Your task to perform on an android device: When is my next appointment? Image 0: 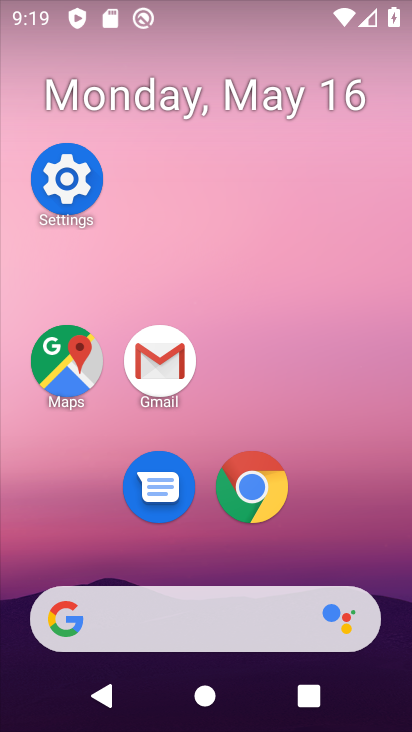
Step 0: drag from (203, 509) to (253, 218)
Your task to perform on an android device: When is my next appointment? Image 1: 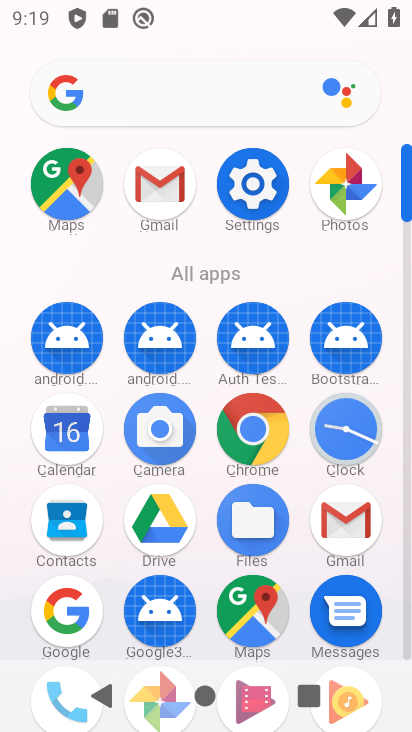
Step 1: drag from (73, 446) to (153, 216)
Your task to perform on an android device: When is my next appointment? Image 2: 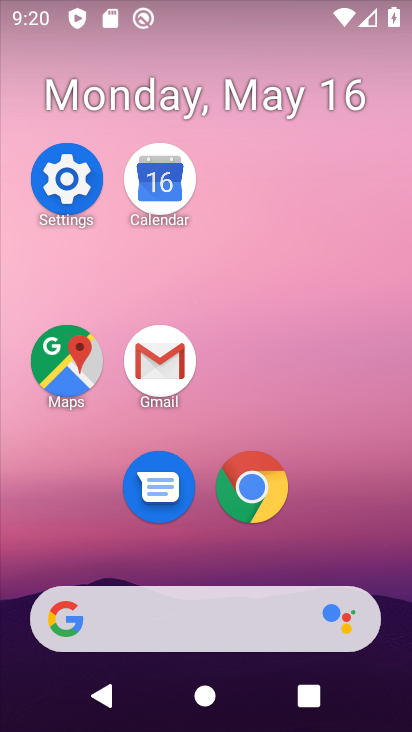
Step 2: click (165, 176)
Your task to perform on an android device: When is my next appointment? Image 3: 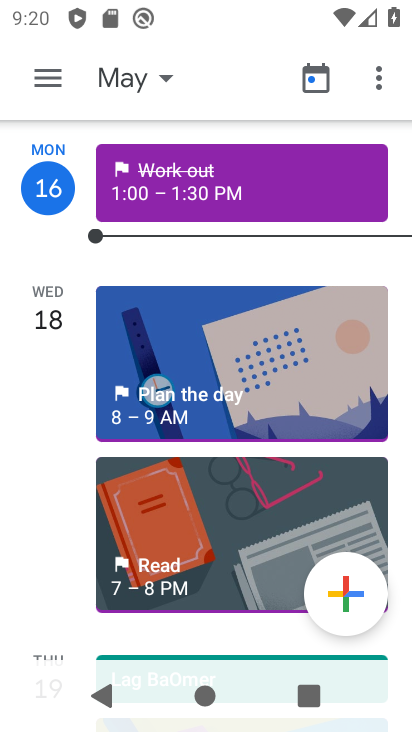
Step 3: click (56, 316)
Your task to perform on an android device: When is my next appointment? Image 4: 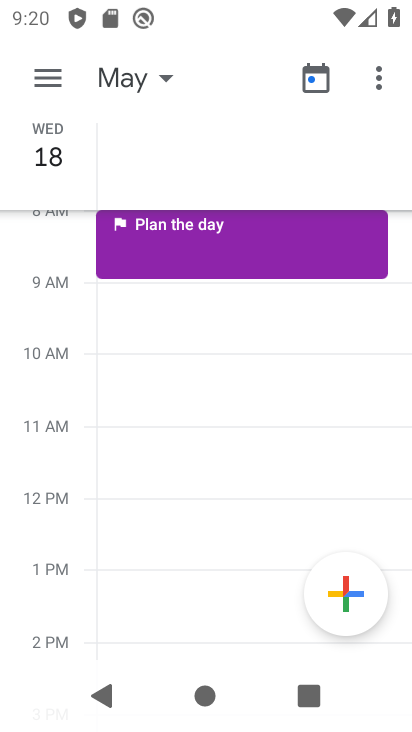
Step 4: task complete